Your task to perform on an android device: toggle sleep mode Image 0: 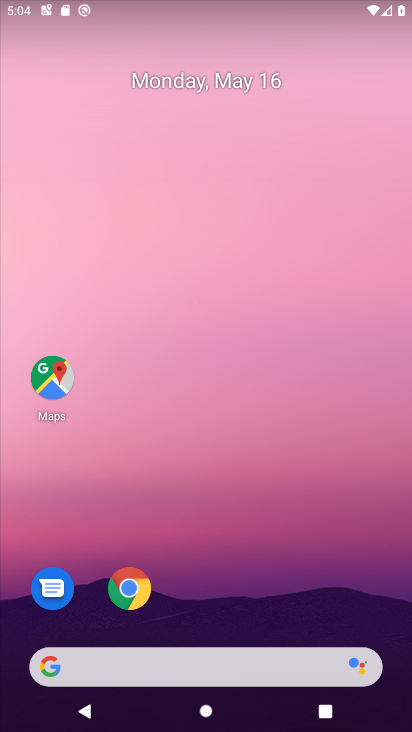
Step 0: drag from (256, 531) to (191, 10)
Your task to perform on an android device: toggle sleep mode Image 1: 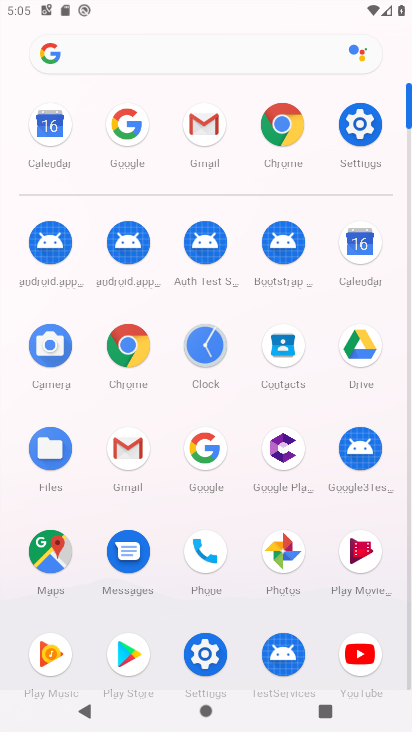
Step 1: click (369, 128)
Your task to perform on an android device: toggle sleep mode Image 2: 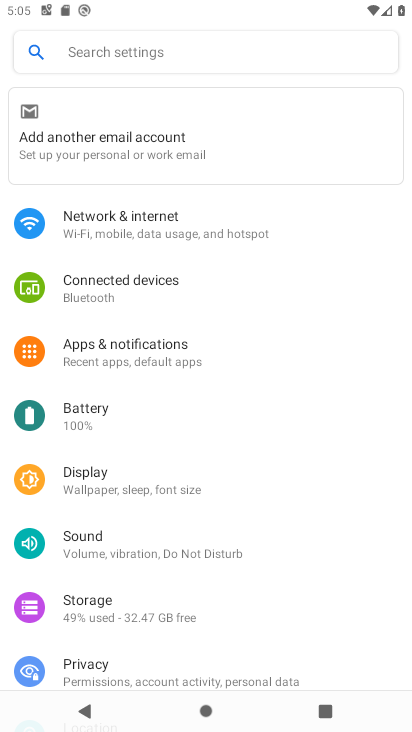
Step 2: click (182, 485)
Your task to perform on an android device: toggle sleep mode Image 3: 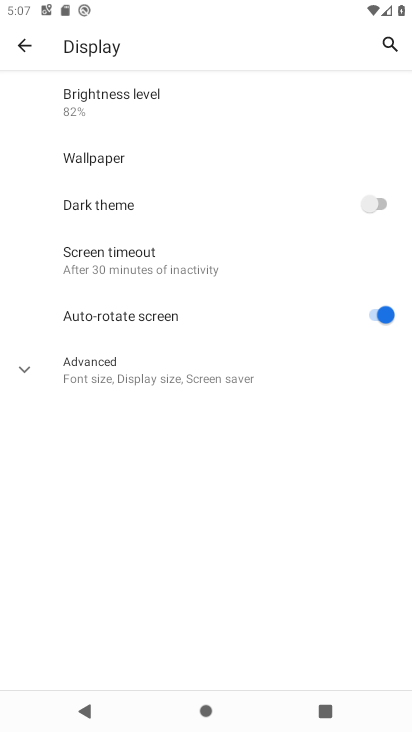
Step 3: task complete